Your task to perform on an android device: Search for Mexican restaurants on Maps Image 0: 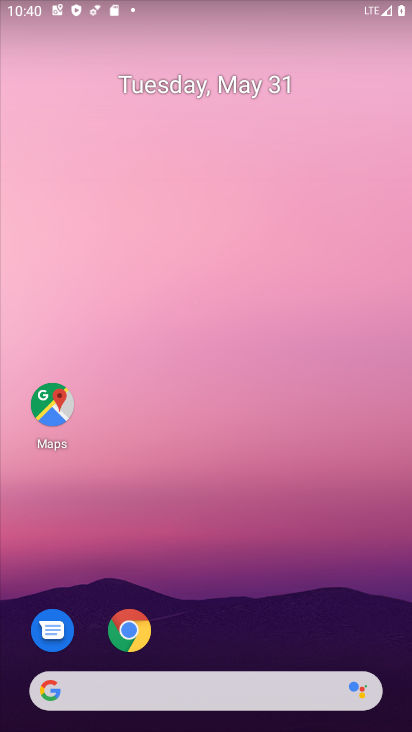
Step 0: drag from (235, 674) to (282, 112)
Your task to perform on an android device: Search for Mexican restaurants on Maps Image 1: 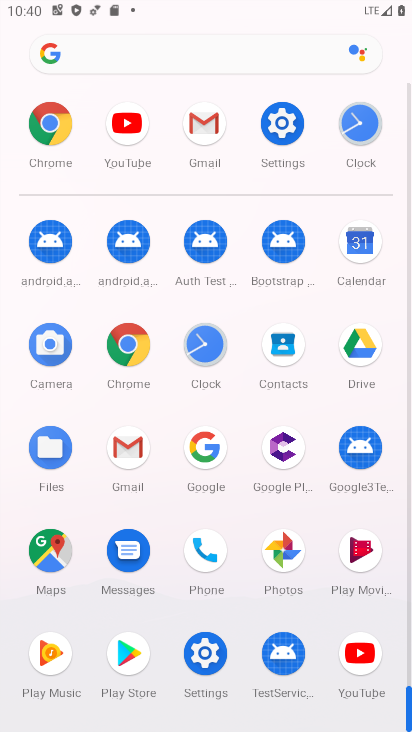
Step 1: click (64, 564)
Your task to perform on an android device: Search for Mexican restaurants on Maps Image 2: 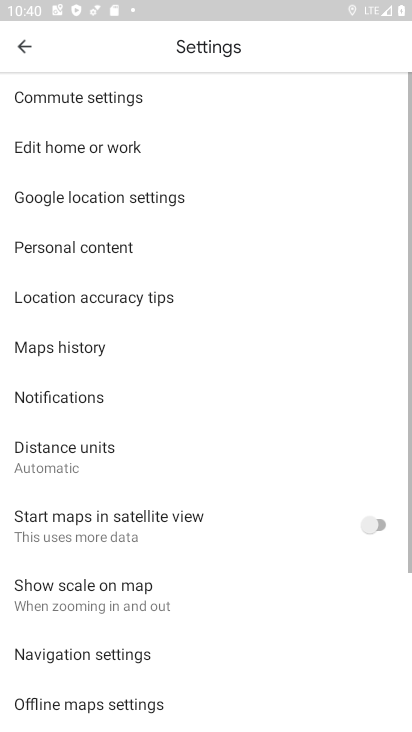
Step 2: click (22, 49)
Your task to perform on an android device: Search for Mexican restaurants on Maps Image 3: 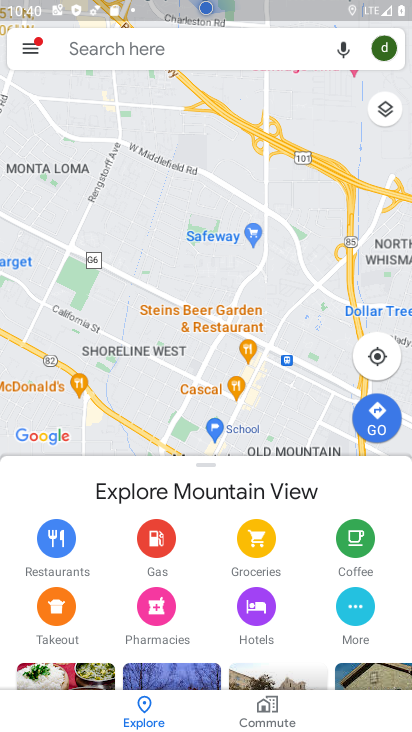
Step 3: click (144, 46)
Your task to perform on an android device: Search for Mexican restaurants on Maps Image 4: 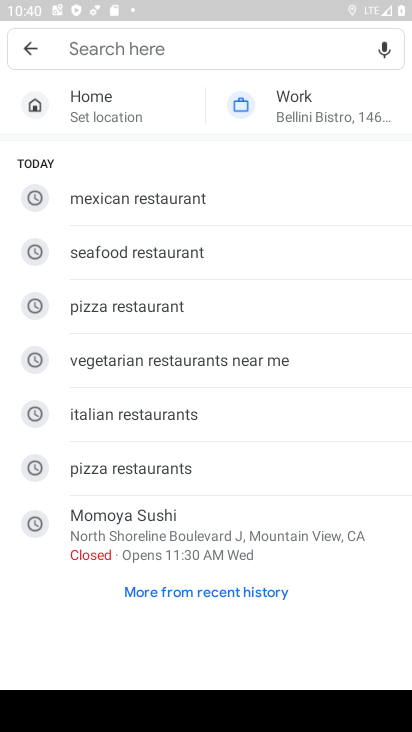
Step 4: click (163, 203)
Your task to perform on an android device: Search for Mexican restaurants on Maps Image 5: 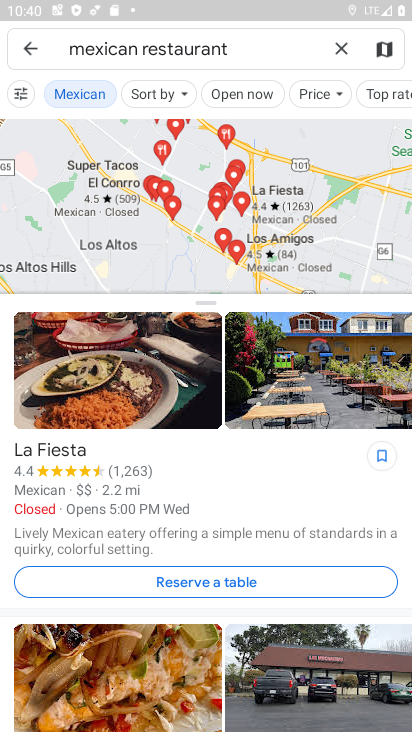
Step 5: task complete